Your task to perform on an android device: turn on the 24-hour format for clock Image 0: 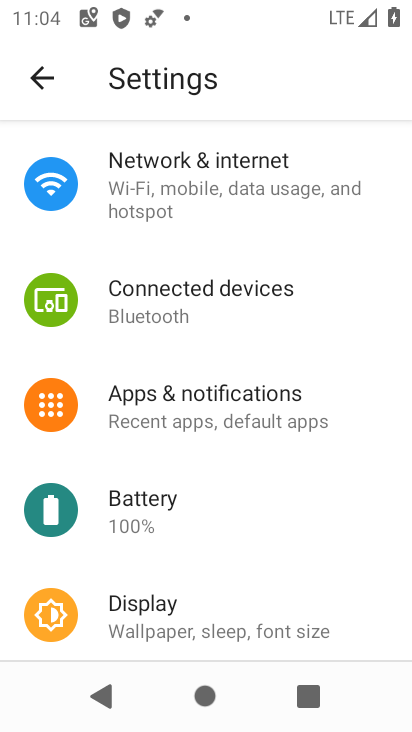
Step 0: press back button
Your task to perform on an android device: turn on the 24-hour format for clock Image 1: 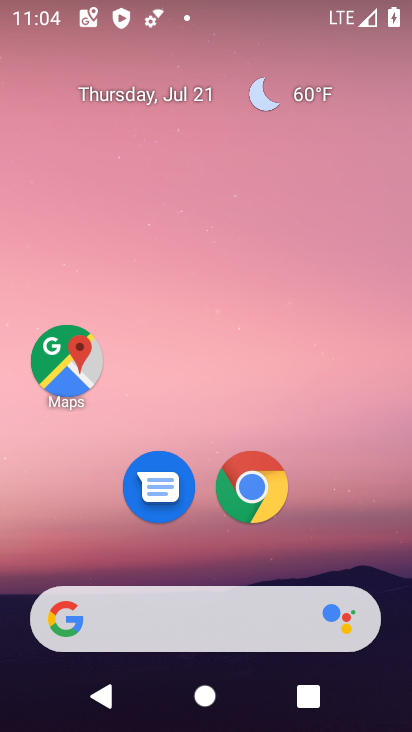
Step 1: drag from (179, 559) to (345, 21)
Your task to perform on an android device: turn on the 24-hour format for clock Image 2: 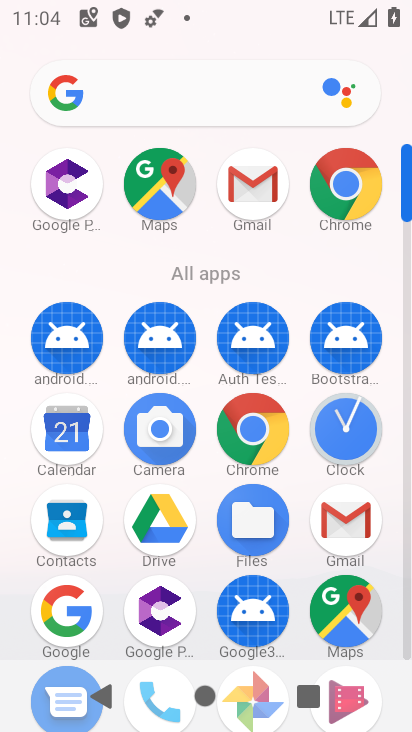
Step 2: click (357, 432)
Your task to perform on an android device: turn on the 24-hour format for clock Image 3: 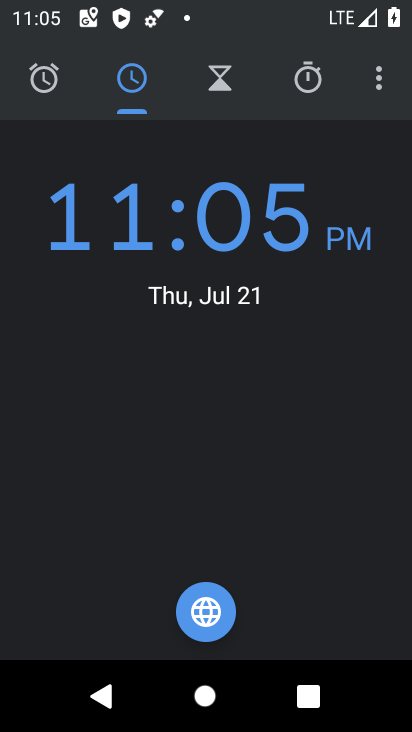
Step 3: click (380, 83)
Your task to perform on an android device: turn on the 24-hour format for clock Image 4: 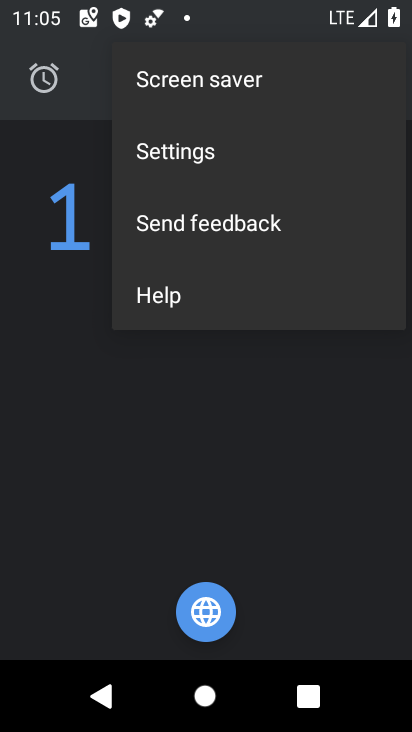
Step 4: click (204, 155)
Your task to perform on an android device: turn on the 24-hour format for clock Image 5: 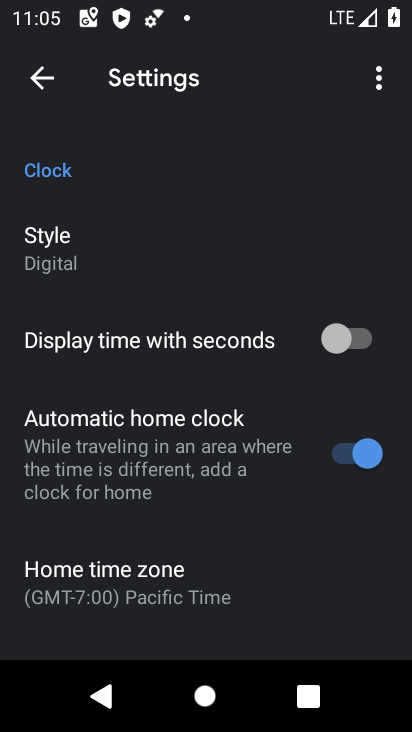
Step 5: drag from (190, 616) to (219, 124)
Your task to perform on an android device: turn on the 24-hour format for clock Image 6: 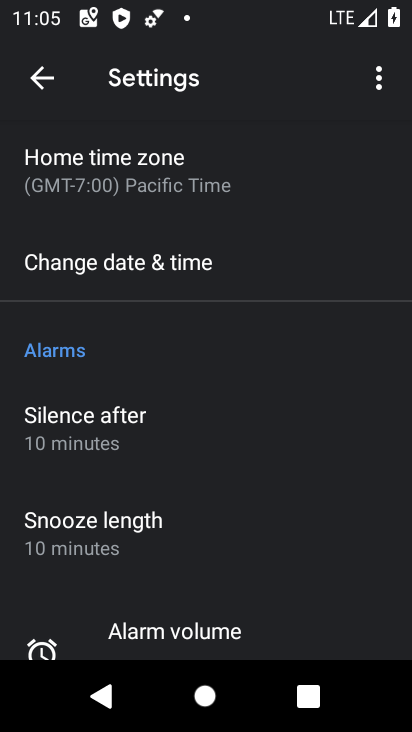
Step 6: click (149, 265)
Your task to perform on an android device: turn on the 24-hour format for clock Image 7: 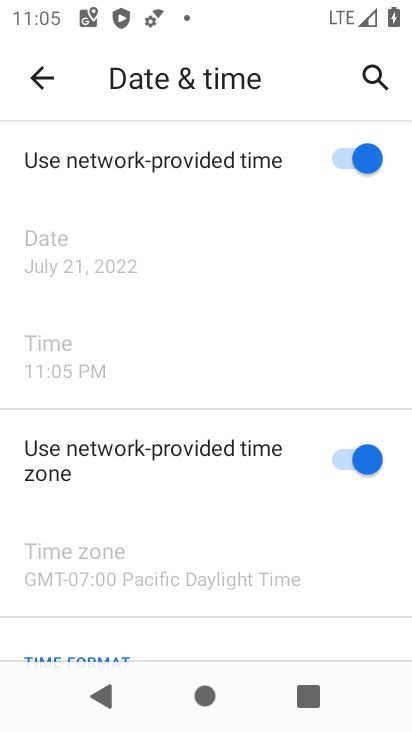
Step 7: drag from (224, 575) to (239, 113)
Your task to perform on an android device: turn on the 24-hour format for clock Image 8: 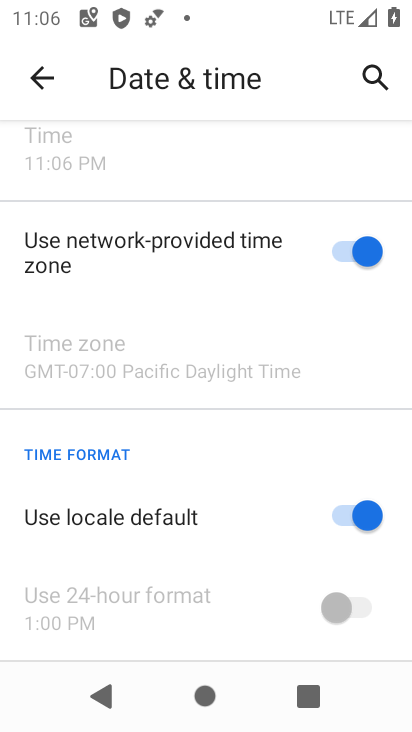
Step 8: click (370, 510)
Your task to perform on an android device: turn on the 24-hour format for clock Image 9: 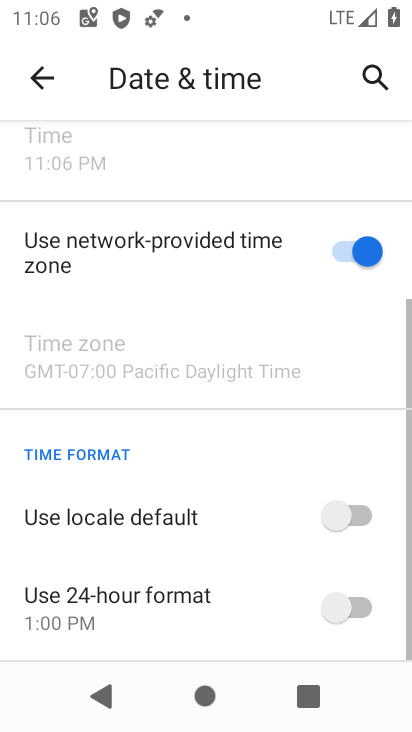
Step 9: click (335, 600)
Your task to perform on an android device: turn on the 24-hour format for clock Image 10: 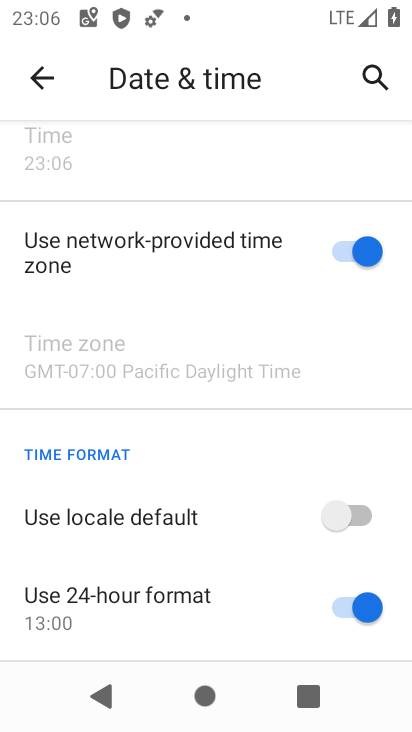
Step 10: task complete